Your task to perform on an android device: Open Yahoo.com Image 0: 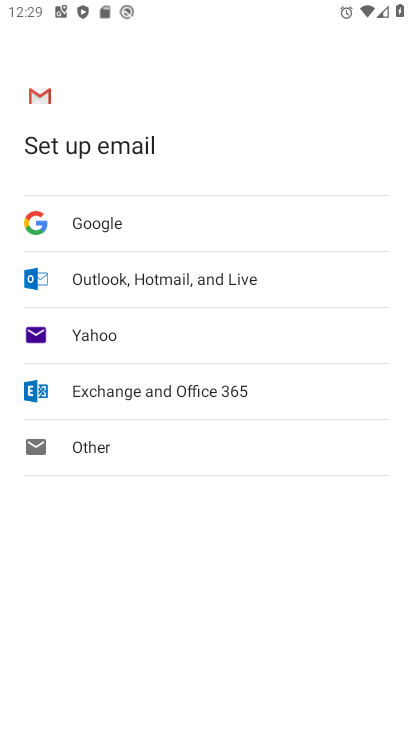
Step 0: press back button
Your task to perform on an android device: Open Yahoo.com Image 1: 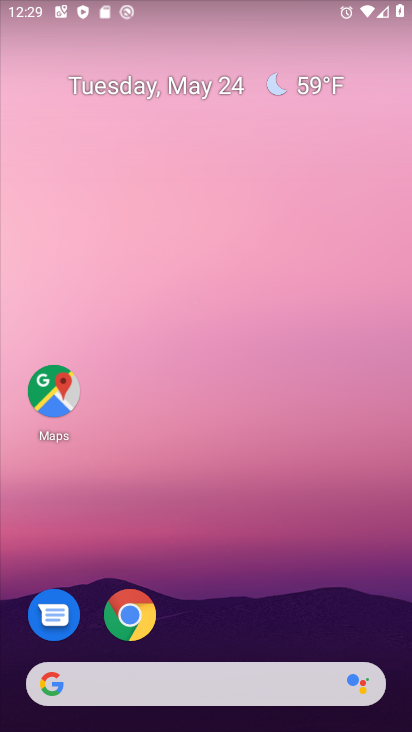
Step 1: drag from (299, 570) to (256, 83)
Your task to perform on an android device: Open Yahoo.com Image 2: 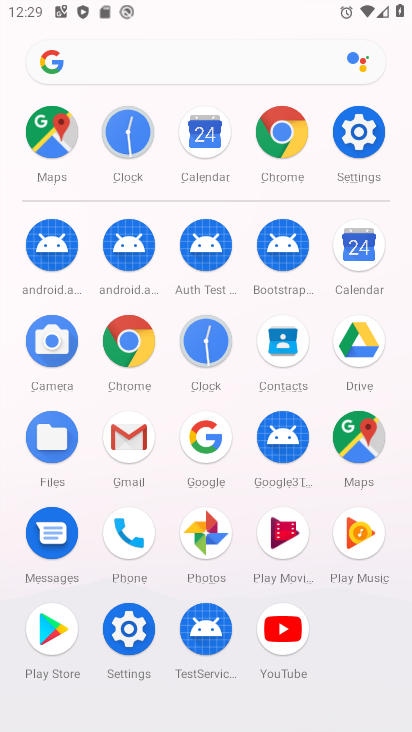
Step 2: drag from (5, 572) to (13, 244)
Your task to perform on an android device: Open Yahoo.com Image 3: 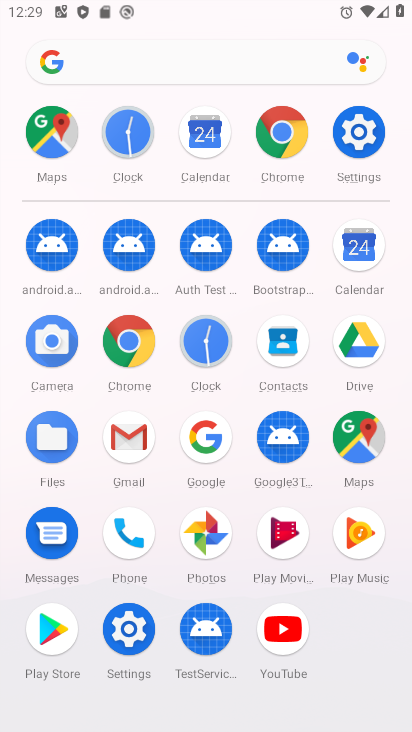
Step 3: click (128, 337)
Your task to perform on an android device: Open Yahoo.com Image 4: 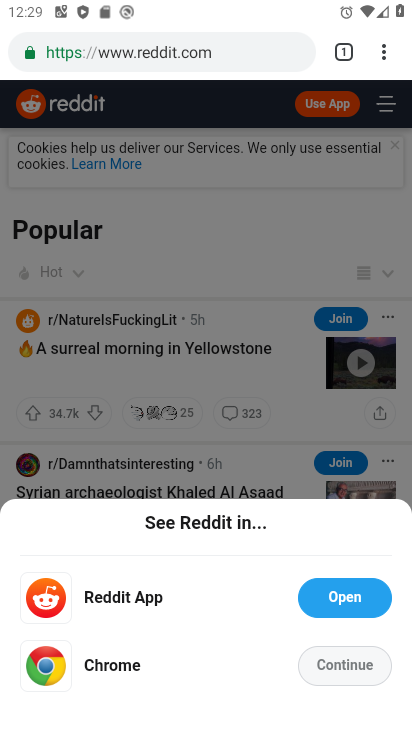
Step 4: click (154, 50)
Your task to perform on an android device: Open Yahoo.com Image 5: 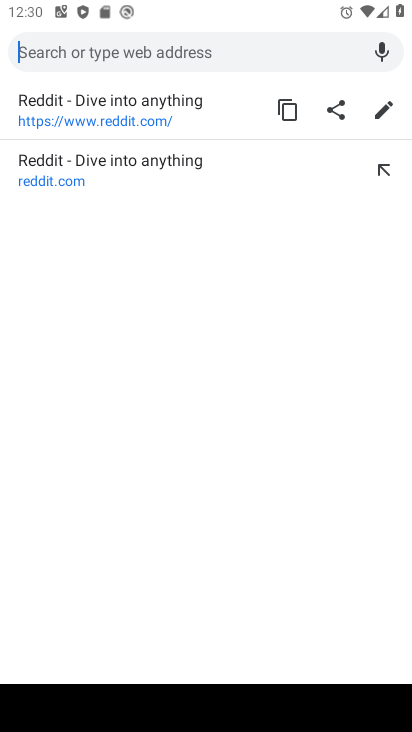
Step 5: click (111, 36)
Your task to perform on an android device: Open Yahoo.com Image 6: 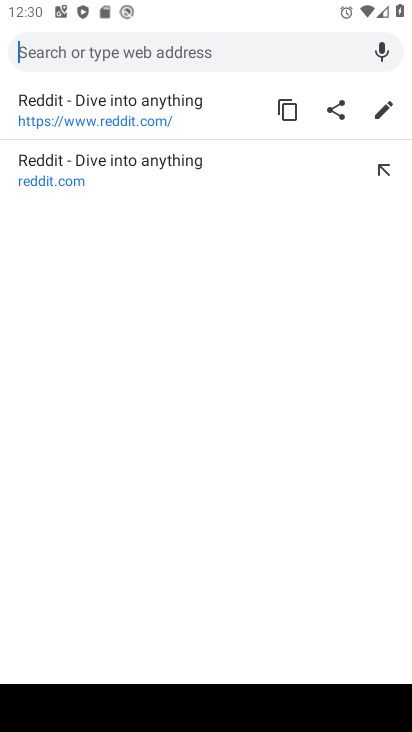
Step 6: type "Yahoo.com"
Your task to perform on an android device: Open Yahoo.com Image 7: 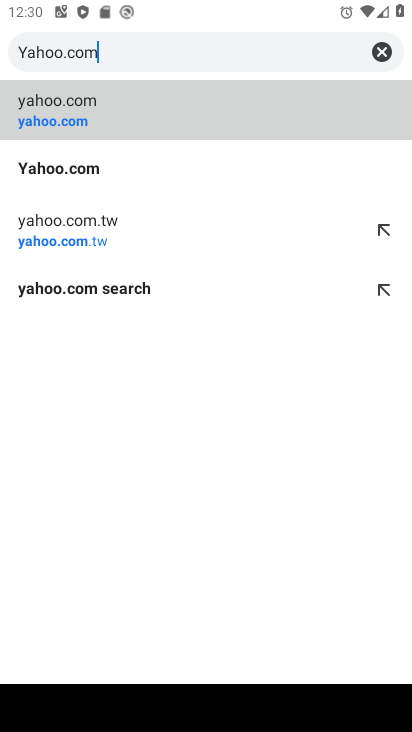
Step 7: type ""
Your task to perform on an android device: Open Yahoo.com Image 8: 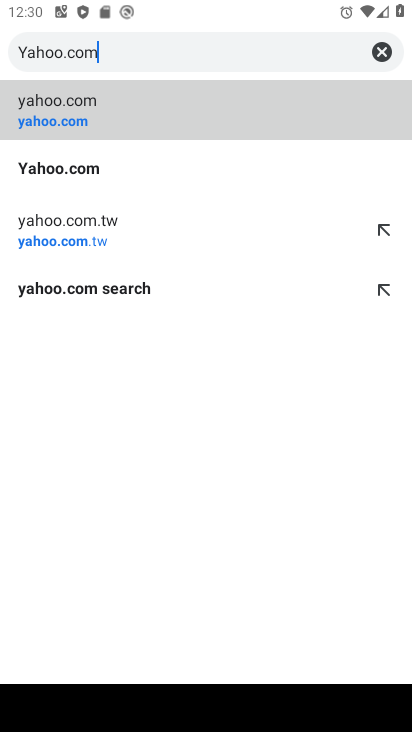
Step 8: click (105, 124)
Your task to perform on an android device: Open Yahoo.com Image 9: 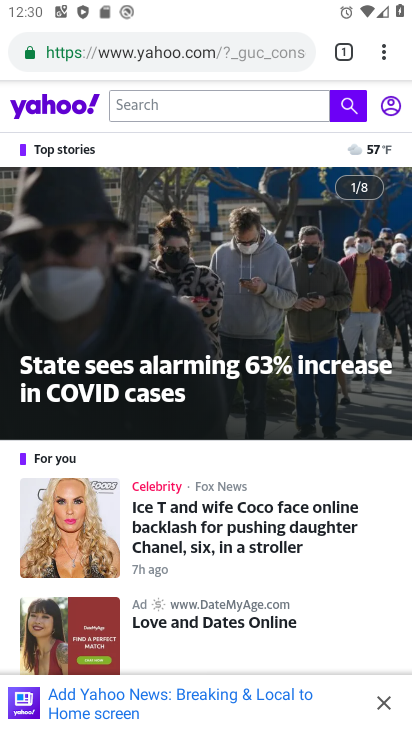
Step 9: task complete